Your task to perform on an android device: open chrome and create a bookmark for the current page Image 0: 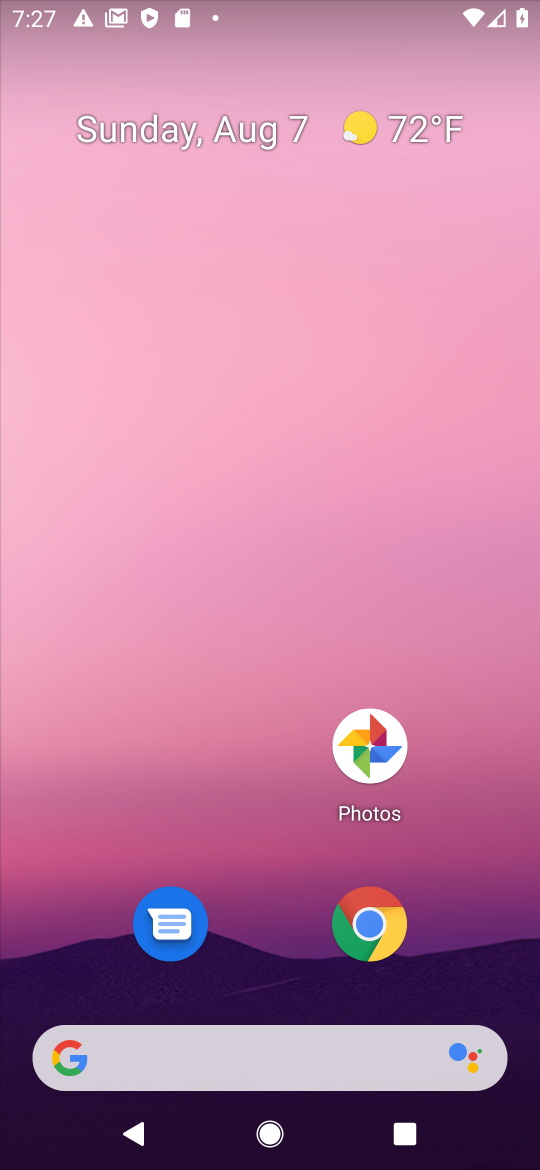
Step 0: press home button
Your task to perform on an android device: open chrome and create a bookmark for the current page Image 1: 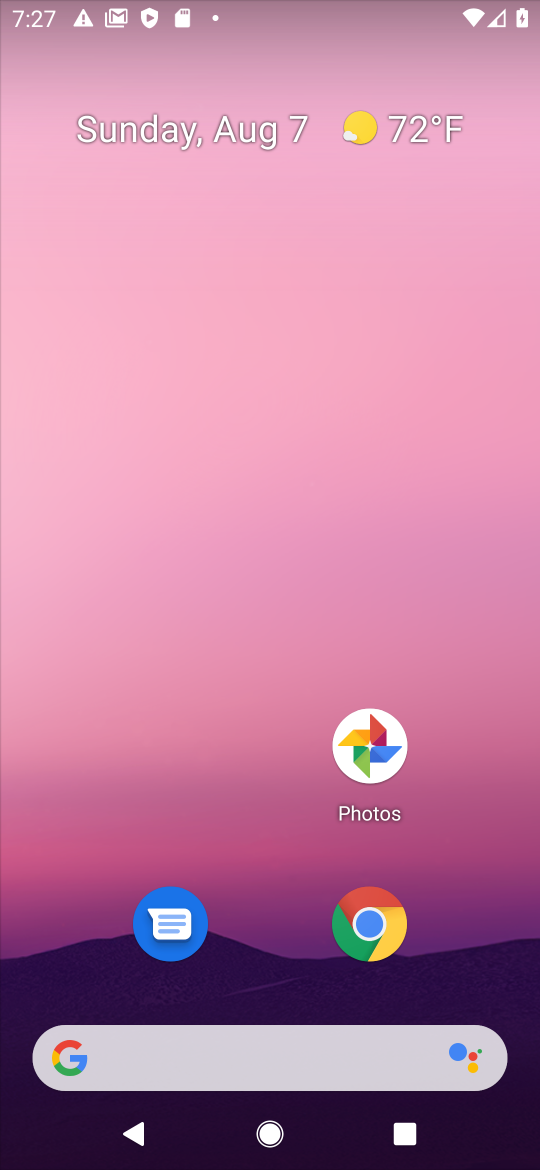
Step 1: drag from (316, 980) to (241, 554)
Your task to perform on an android device: open chrome and create a bookmark for the current page Image 2: 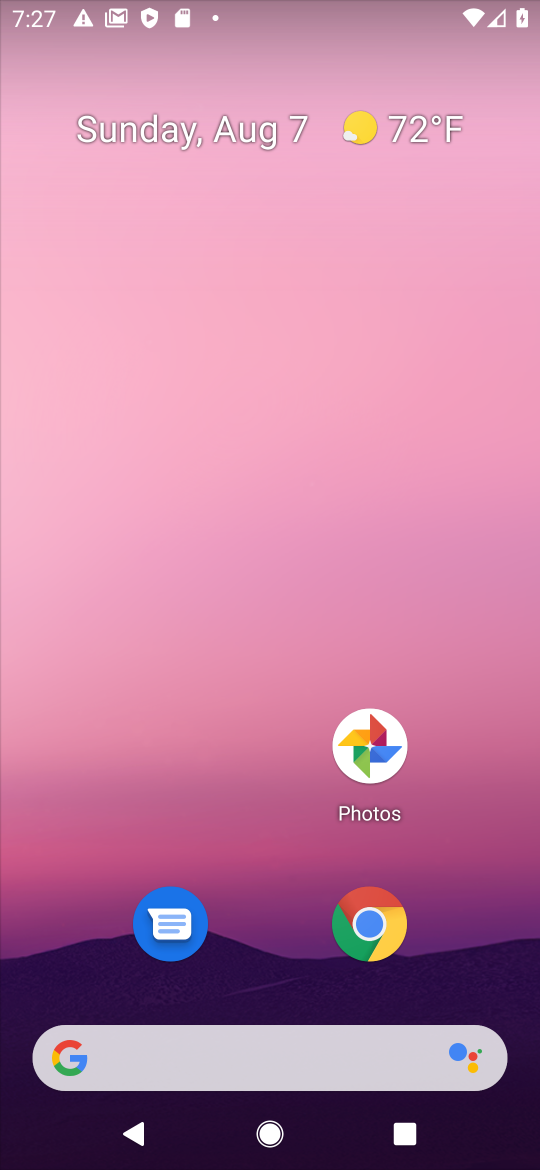
Step 2: drag from (303, 1090) to (203, 286)
Your task to perform on an android device: open chrome and create a bookmark for the current page Image 3: 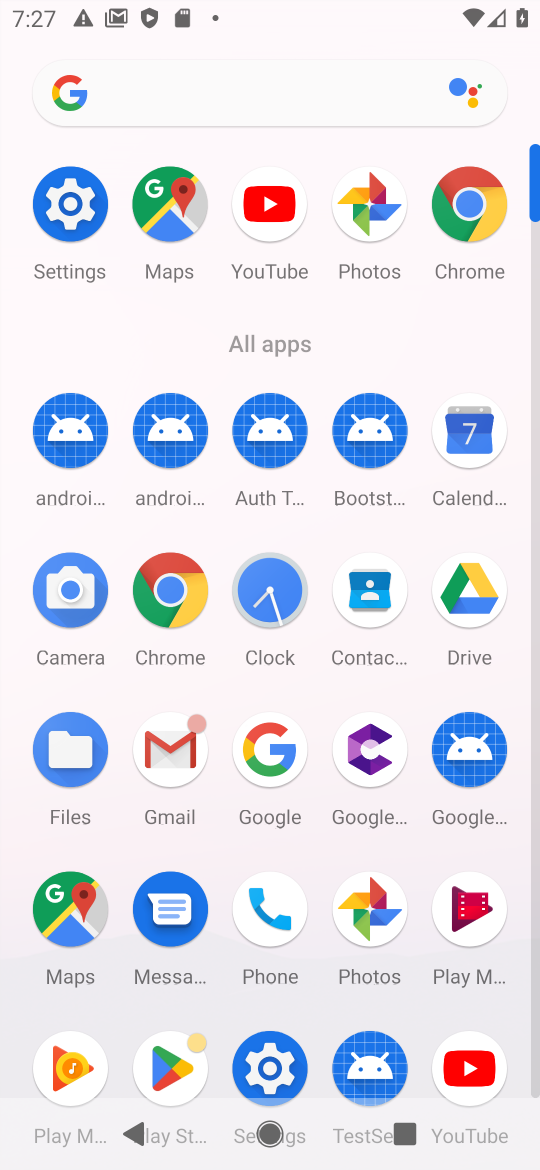
Step 3: click (480, 202)
Your task to perform on an android device: open chrome and create a bookmark for the current page Image 4: 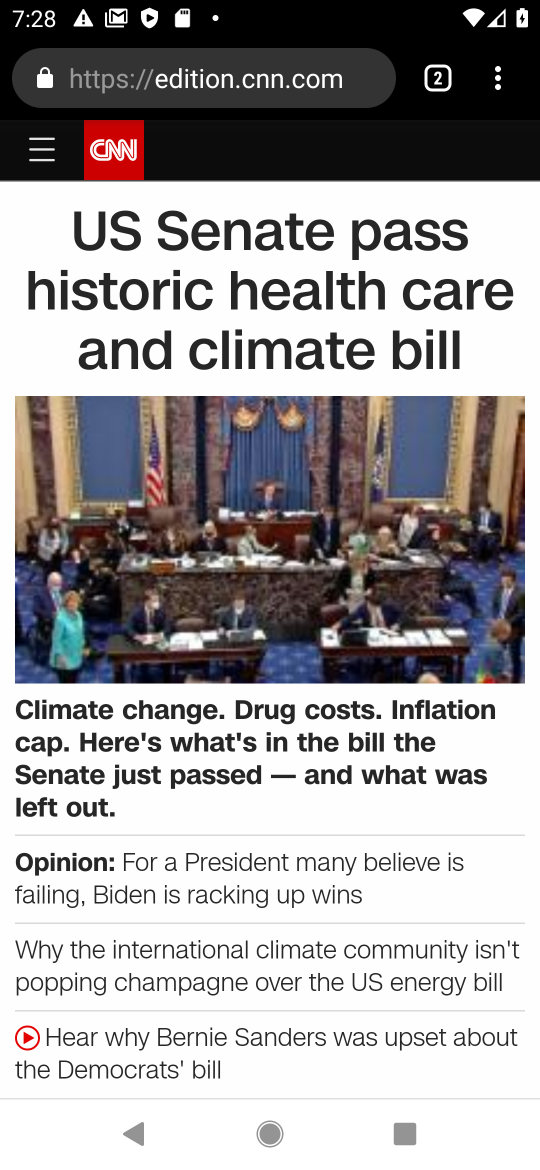
Step 4: click (494, 85)
Your task to perform on an android device: open chrome and create a bookmark for the current page Image 5: 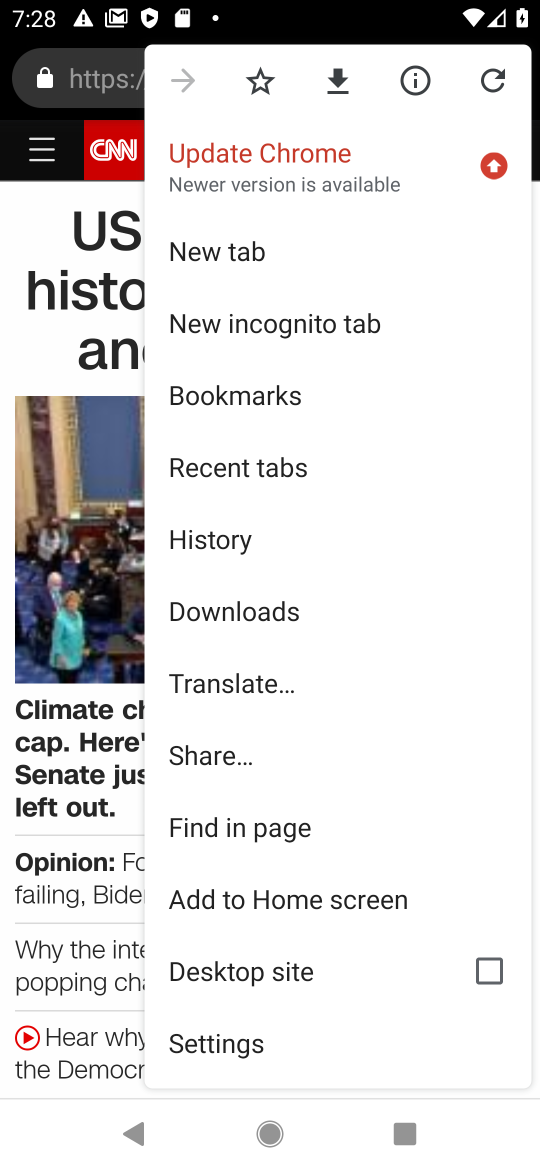
Step 5: click (272, 404)
Your task to perform on an android device: open chrome and create a bookmark for the current page Image 6: 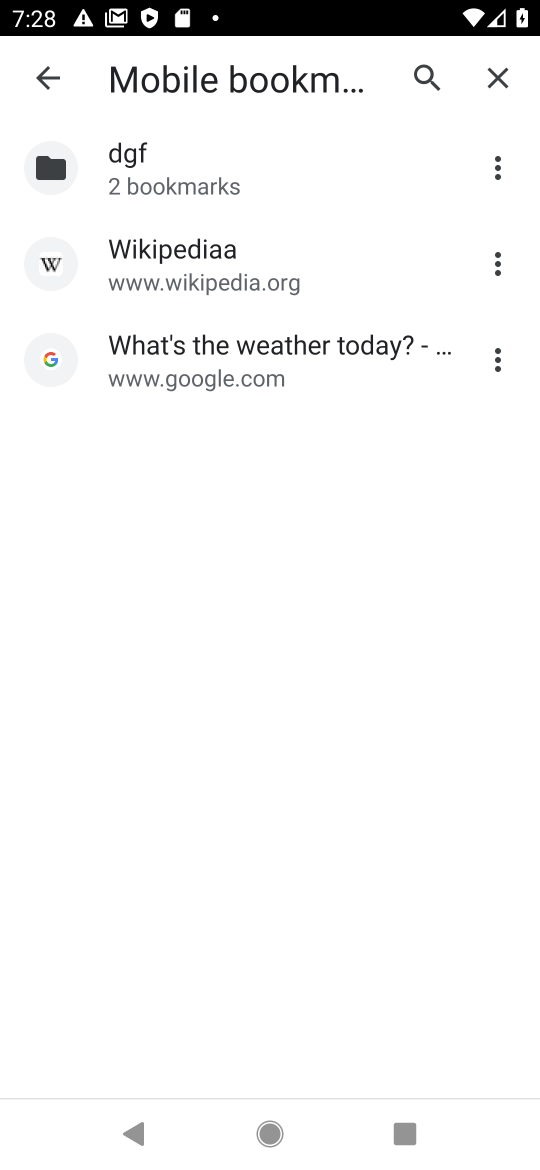
Step 6: task complete